Your task to perform on an android device: delete the emails in spam in the gmail app Image 0: 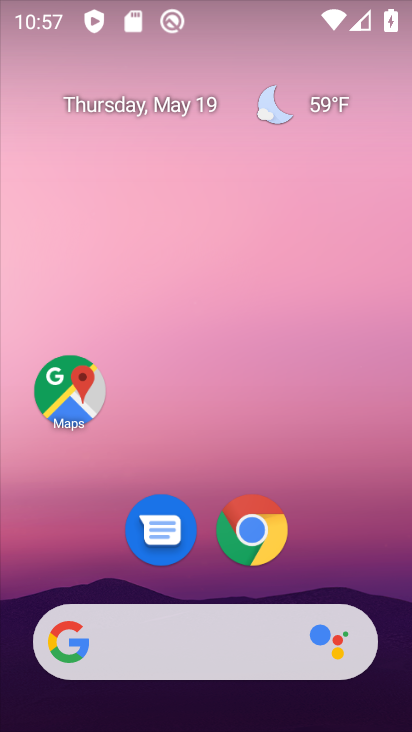
Step 0: drag from (344, 571) to (336, 138)
Your task to perform on an android device: delete the emails in spam in the gmail app Image 1: 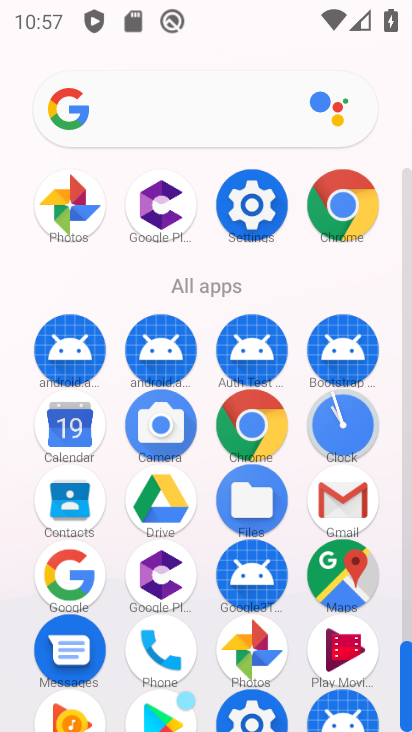
Step 1: click (251, 208)
Your task to perform on an android device: delete the emails in spam in the gmail app Image 2: 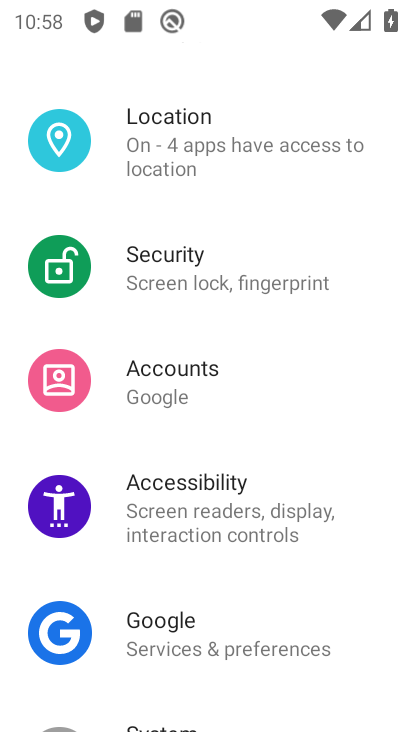
Step 2: drag from (339, 621) to (305, 358)
Your task to perform on an android device: delete the emails in spam in the gmail app Image 3: 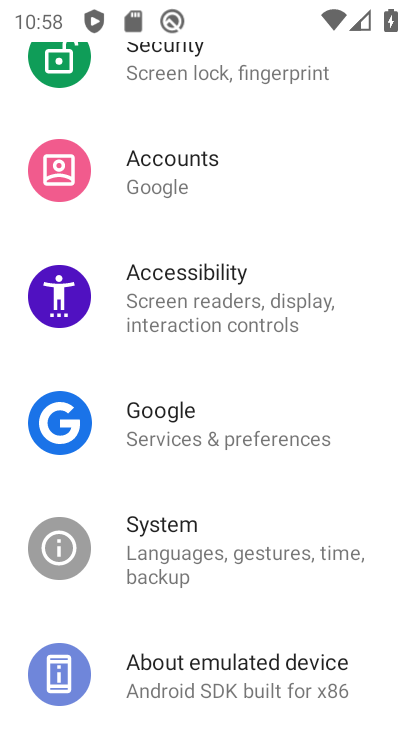
Step 3: press home button
Your task to perform on an android device: delete the emails in spam in the gmail app Image 4: 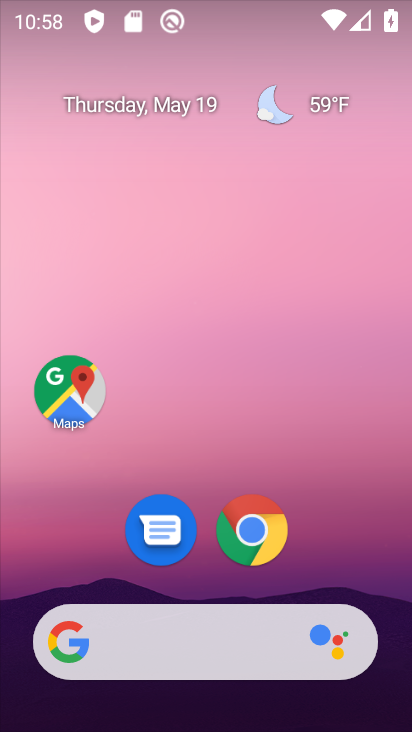
Step 4: drag from (382, 579) to (305, 173)
Your task to perform on an android device: delete the emails in spam in the gmail app Image 5: 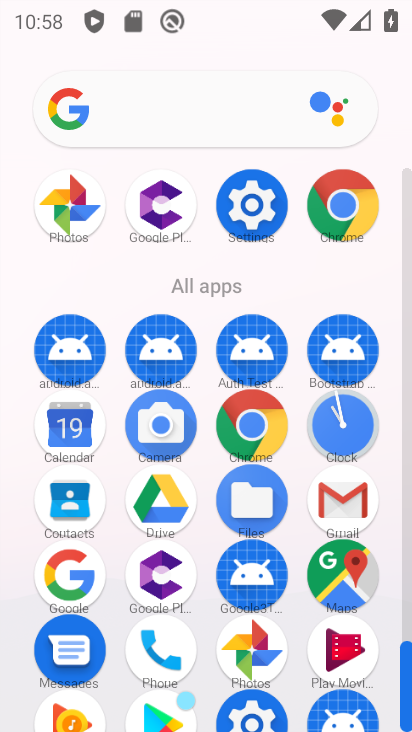
Step 5: click (349, 503)
Your task to perform on an android device: delete the emails in spam in the gmail app Image 6: 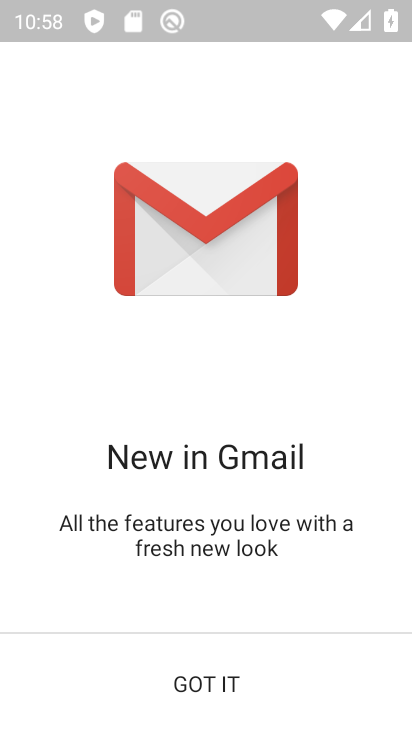
Step 6: click (221, 684)
Your task to perform on an android device: delete the emails in spam in the gmail app Image 7: 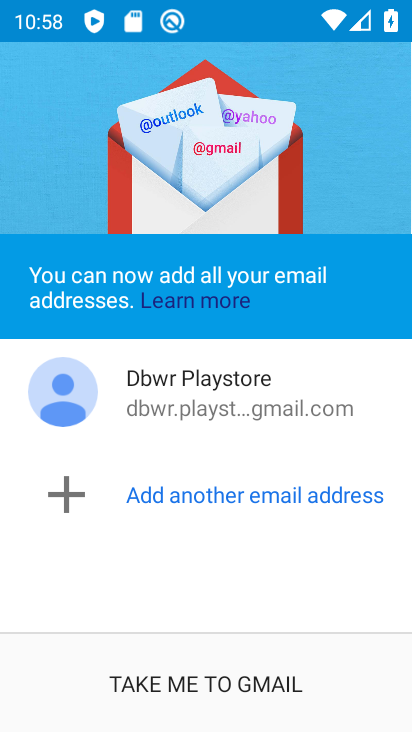
Step 7: click (229, 685)
Your task to perform on an android device: delete the emails in spam in the gmail app Image 8: 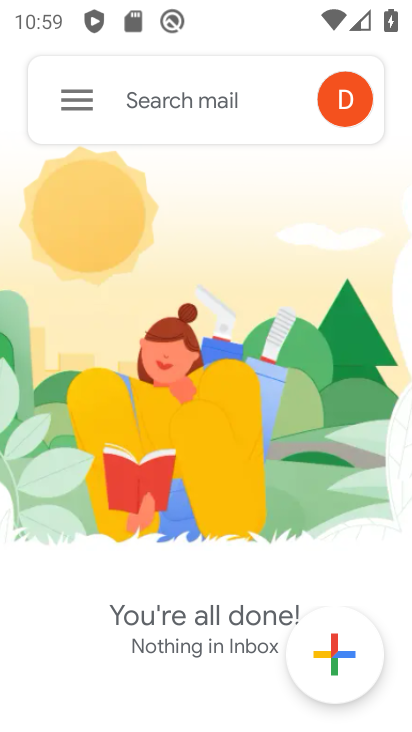
Step 8: click (91, 99)
Your task to perform on an android device: delete the emails in spam in the gmail app Image 9: 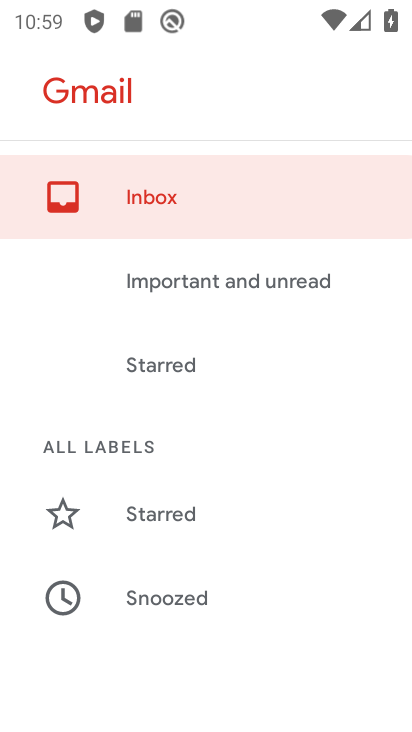
Step 9: drag from (159, 630) to (185, 267)
Your task to perform on an android device: delete the emails in spam in the gmail app Image 10: 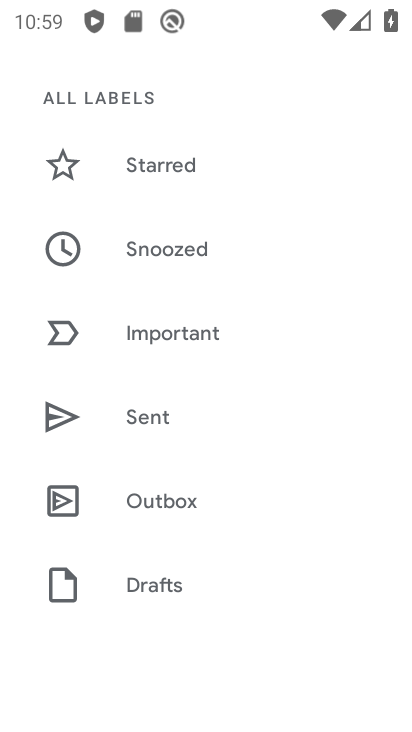
Step 10: drag from (177, 606) to (188, 296)
Your task to perform on an android device: delete the emails in spam in the gmail app Image 11: 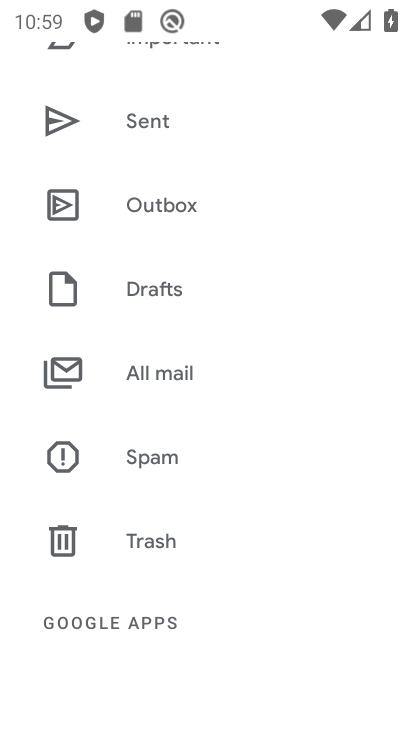
Step 11: click (152, 458)
Your task to perform on an android device: delete the emails in spam in the gmail app Image 12: 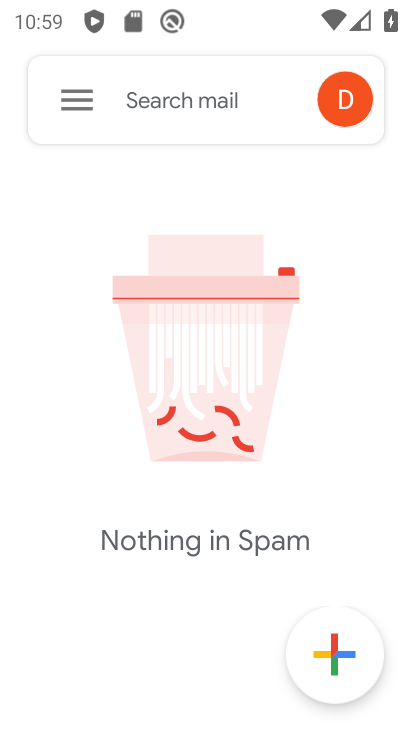
Step 12: task complete